Your task to perform on an android device: Open settings Image 0: 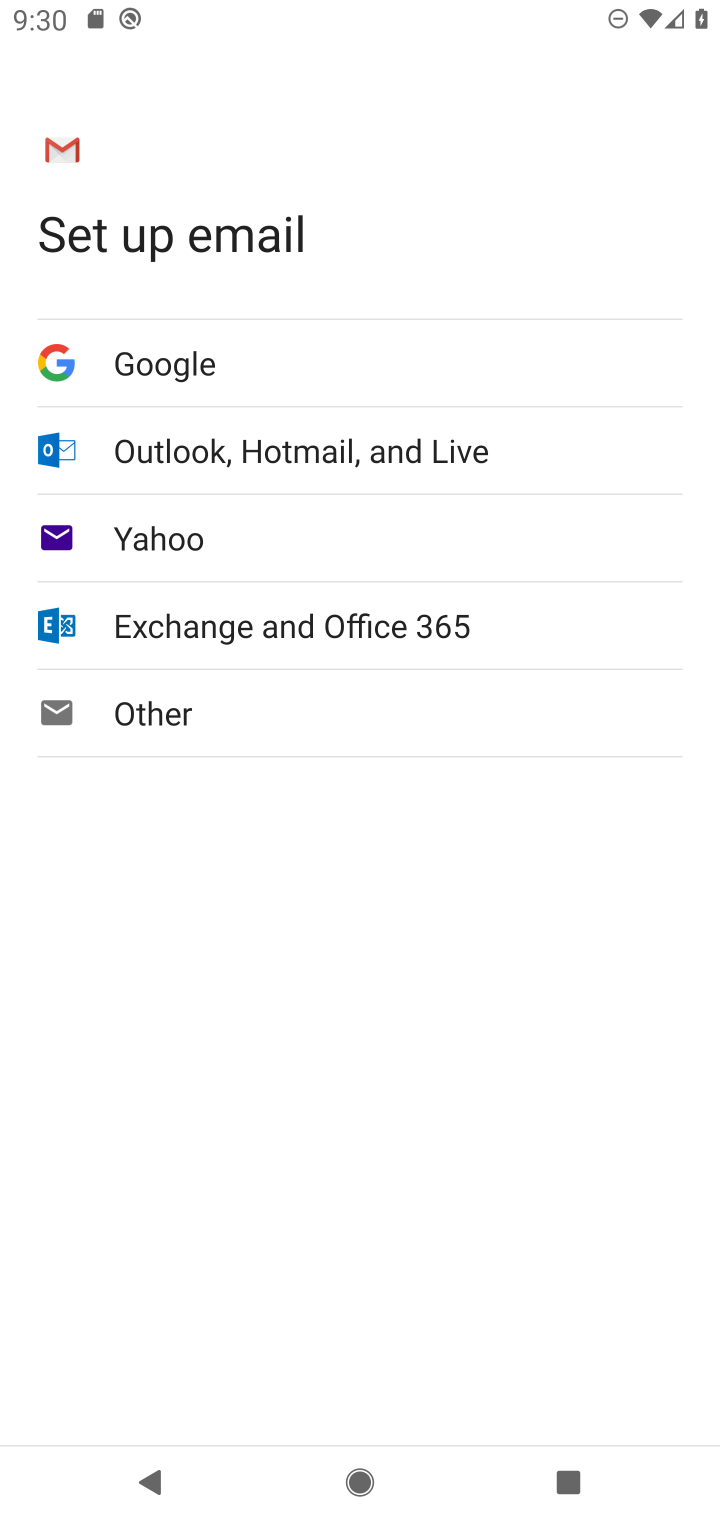
Step 0: press home button
Your task to perform on an android device: Open settings Image 1: 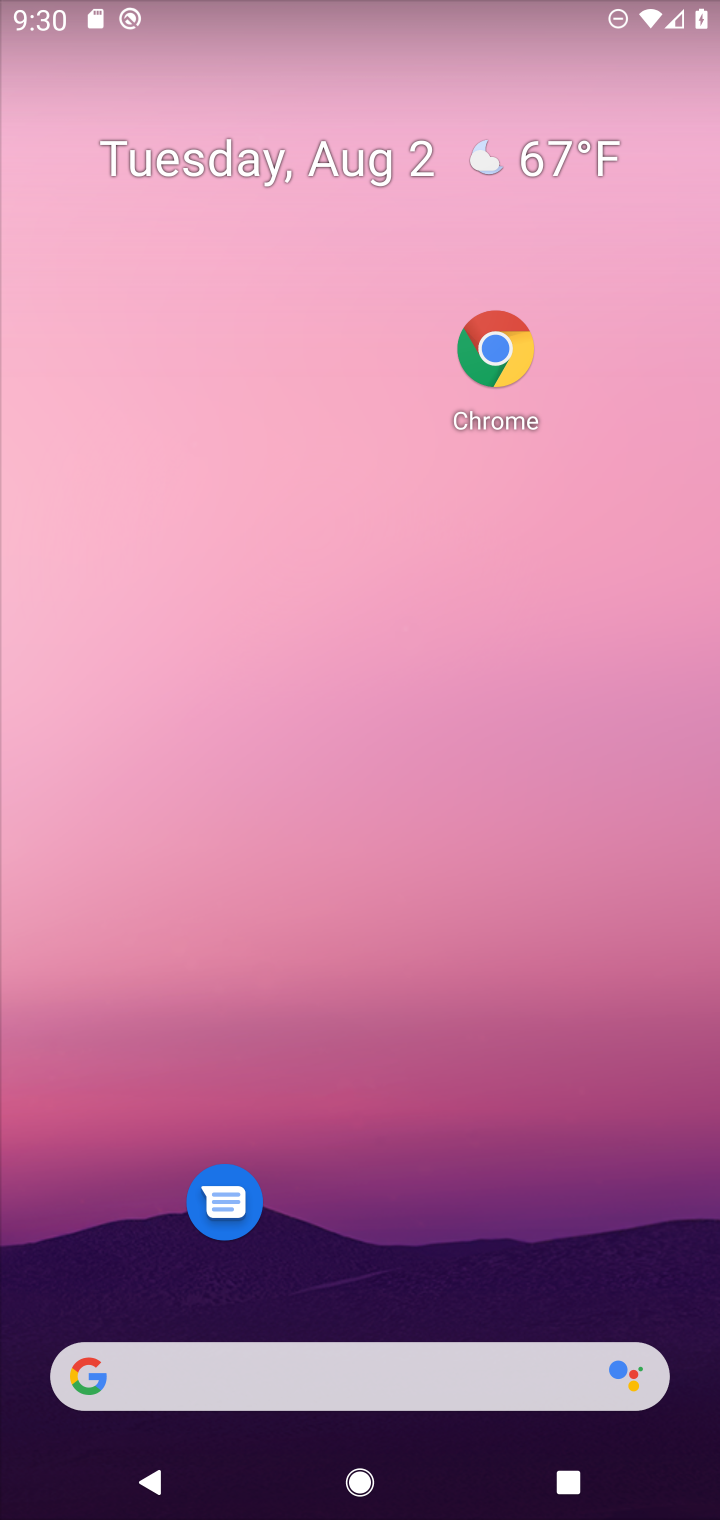
Step 1: drag from (351, 1079) to (345, 72)
Your task to perform on an android device: Open settings Image 2: 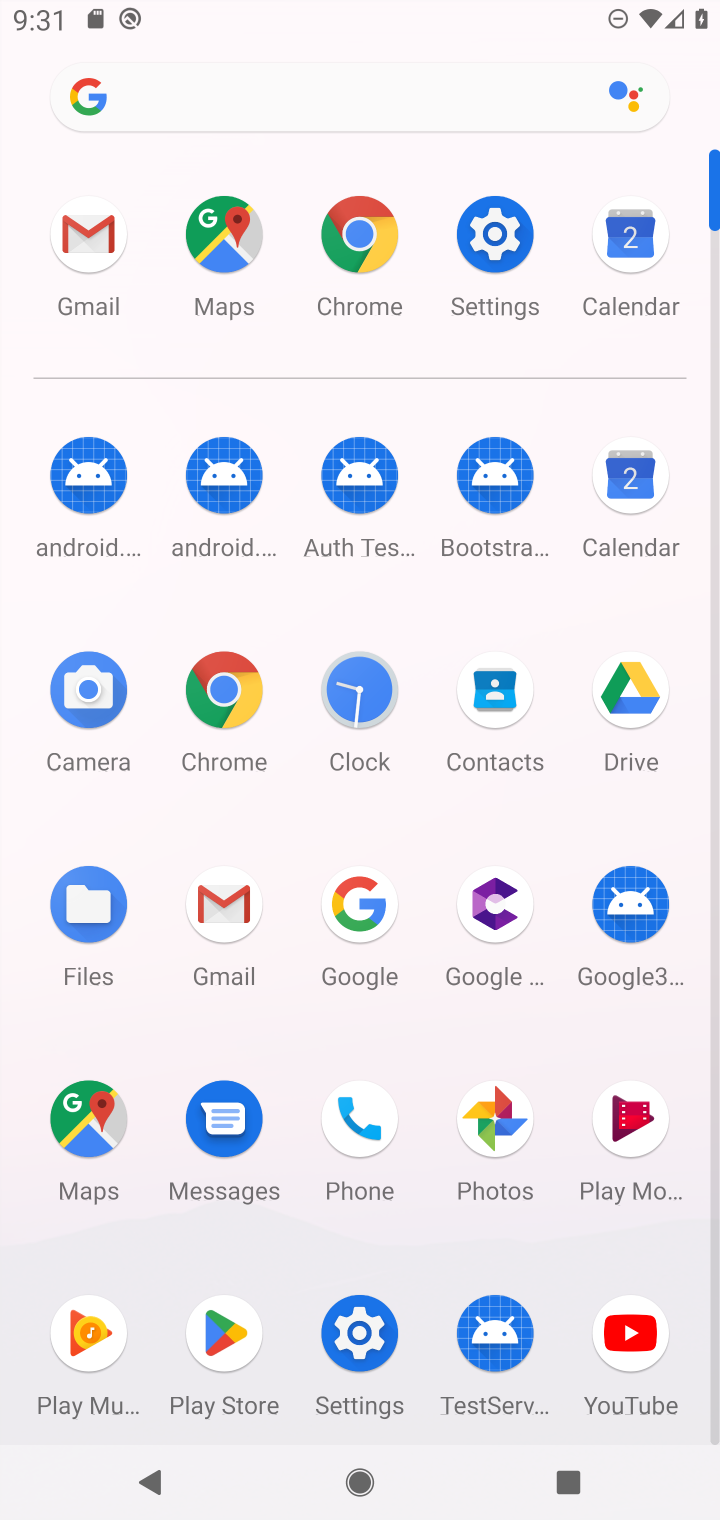
Step 2: click (493, 246)
Your task to perform on an android device: Open settings Image 3: 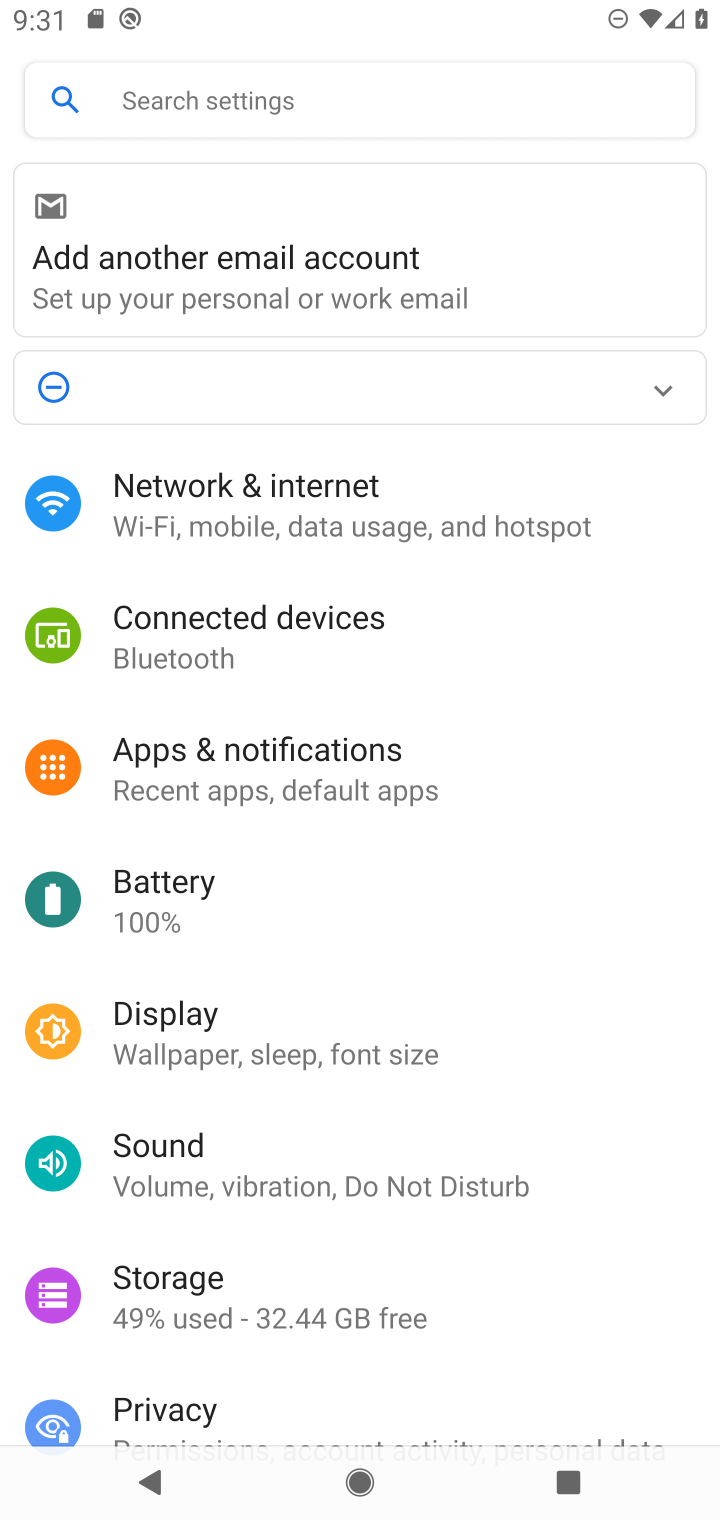
Step 3: task complete